Your task to perform on an android device: Open ESPN.com Image 0: 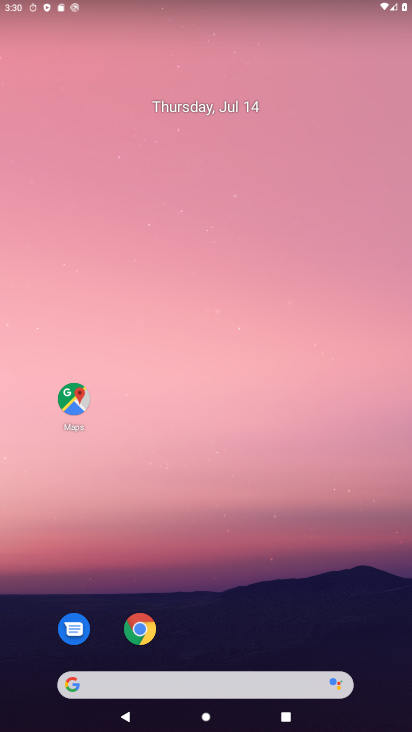
Step 0: drag from (299, 587) to (284, 232)
Your task to perform on an android device: Open ESPN.com Image 1: 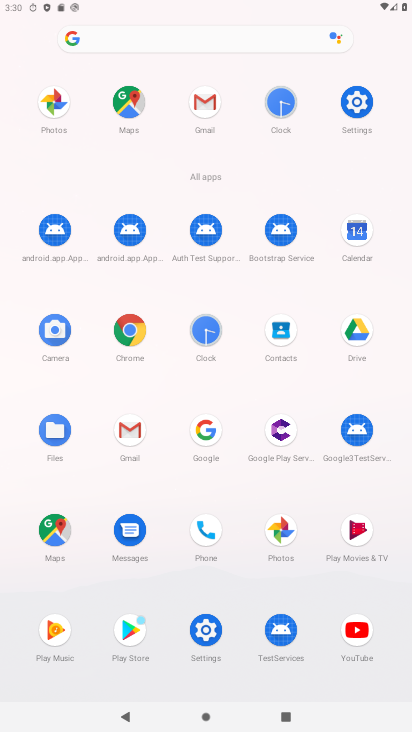
Step 1: click (142, 340)
Your task to perform on an android device: Open ESPN.com Image 2: 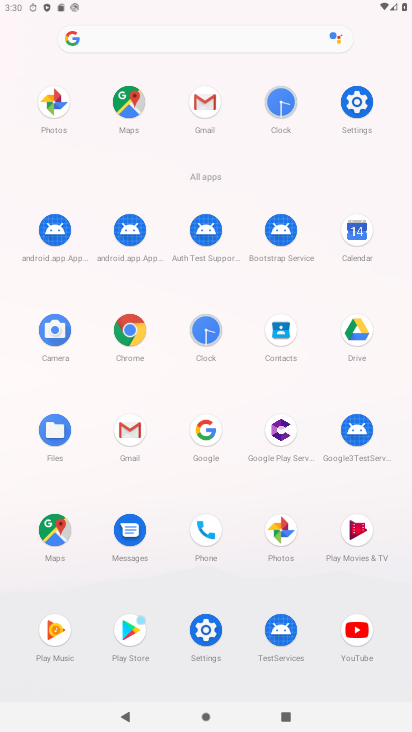
Step 2: click (128, 330)
Your task to perform on an android device: Open ESPN.com Image 3: 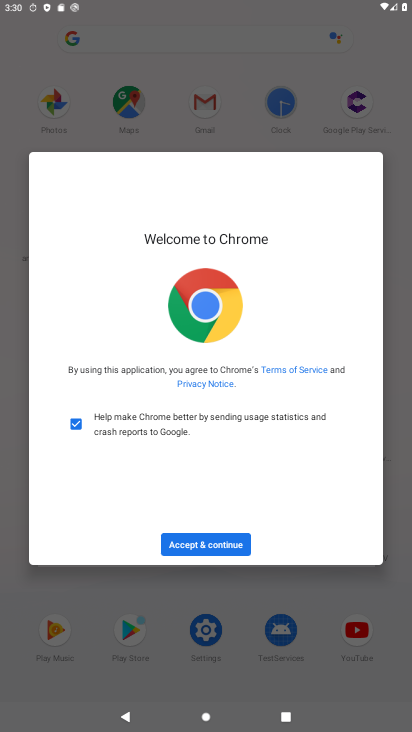
Step 3: click (217, 540)
Your task to perform on an android device: Open ESPN.com Image 4: 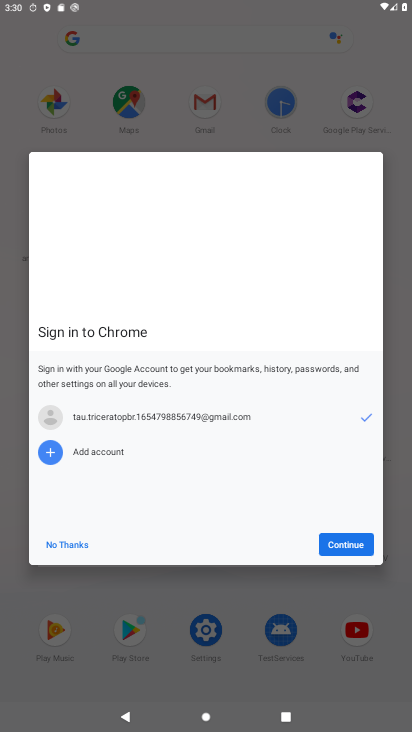
Step 4: click (356, 547)
Your task to perform on an android device: Open ESPN.com Image 5: 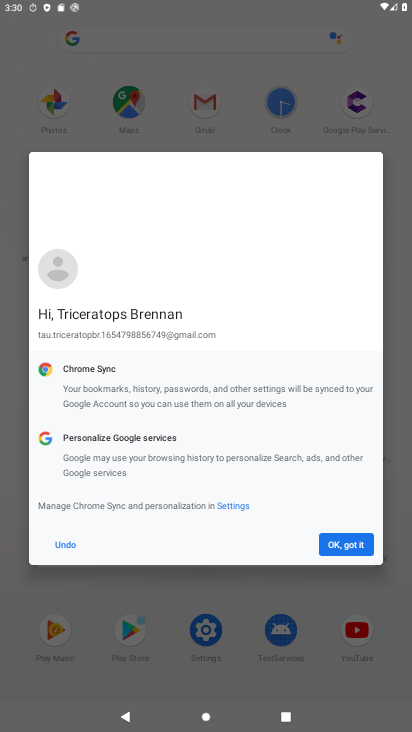
Step 5: click (358, 536)
Your task to perform on an android device: Open ESPN.com Image 6: 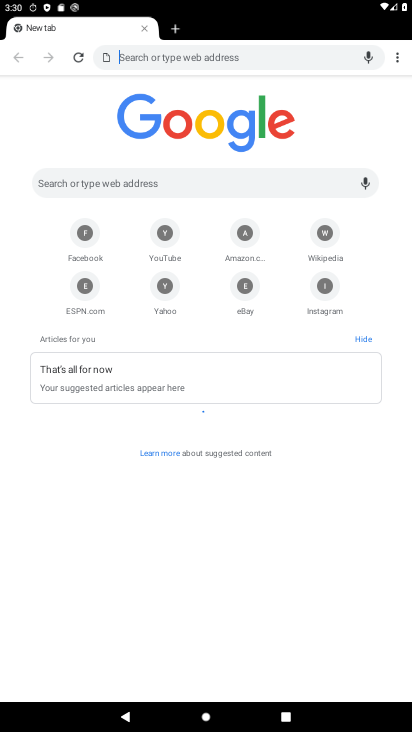
Step 6: click (190, 49)
Your task to perform on an android device: Open ESPN.com Image 7: 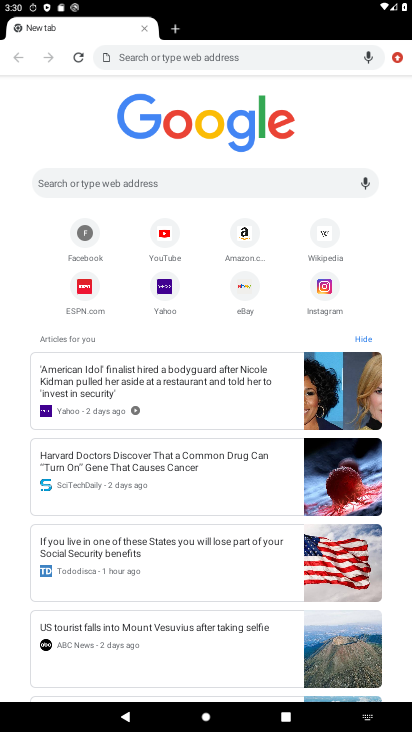
Step 7: click (265, 53)
Your task to perform on an android device: Open ESPN.com Image 8: 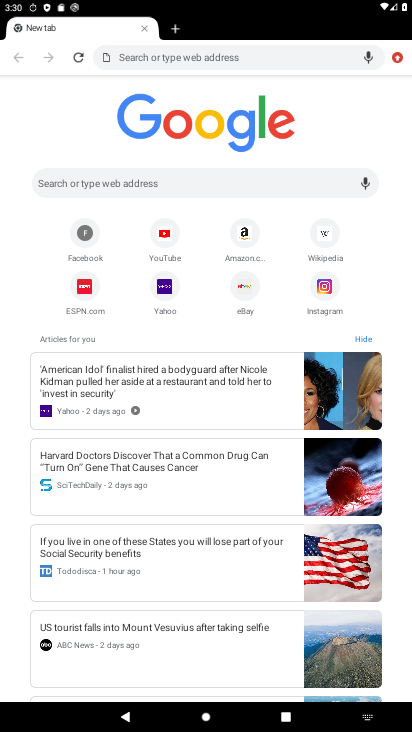
Step 8: type "ESPN.com"
Your task to perform on an android device: Open ESPN.com Image 9: 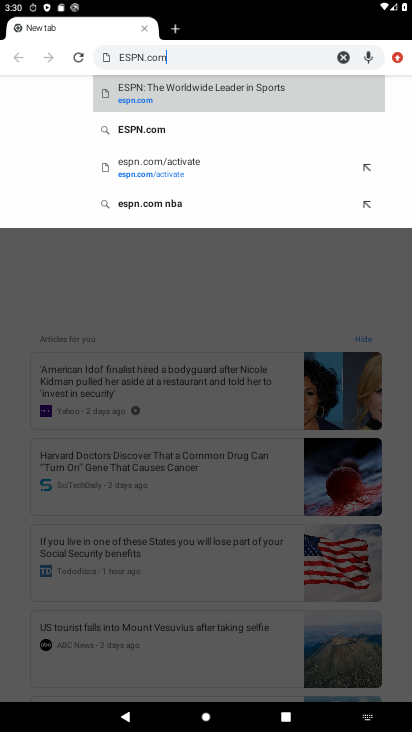
Step 9: click (132, 95)
Your task to perform on an android device: Open ESPN.com Image 10: 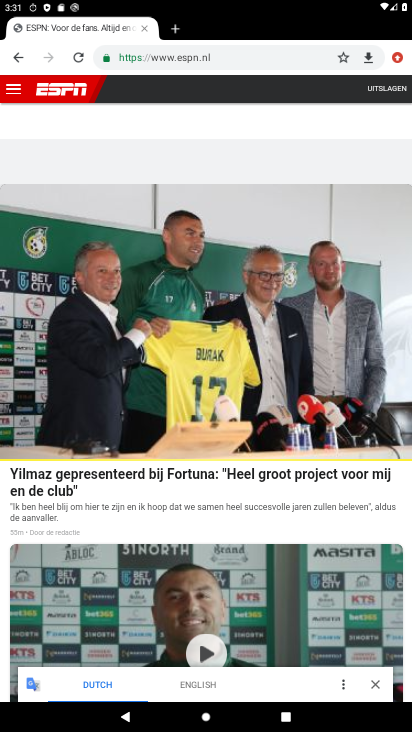
Step 10: task complete